Your task to perform on an android device: open wifi settings Image 0: 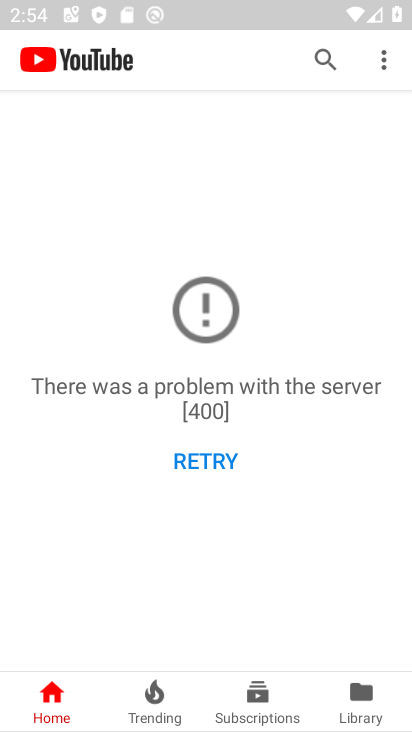
Step 0: press home button
Your task to perform on an android device: open wifi settings Image 1: 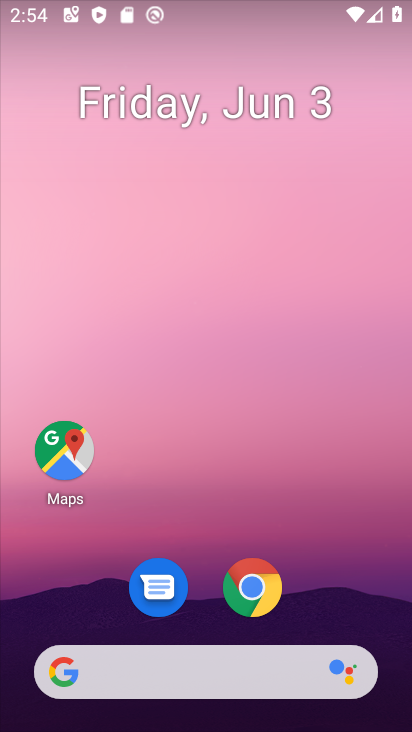
Step 1: drag from (228, 730) to (189, 73)
Your task to perform on an android device: open wifi settings Image 2: 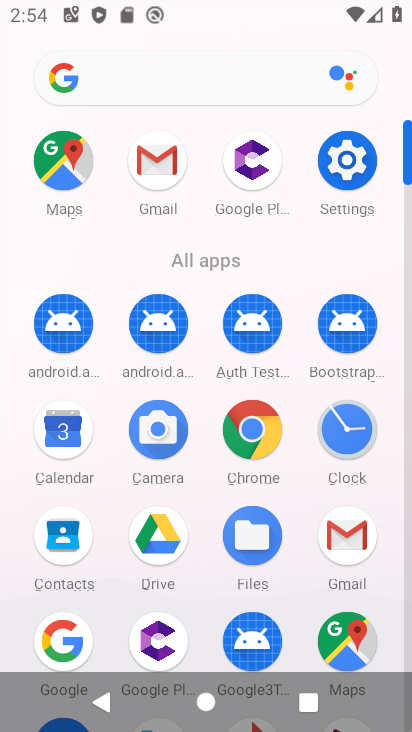
Step 2: click (341, 163)
Your task to perform on an android device: open wifi settings Image 3: 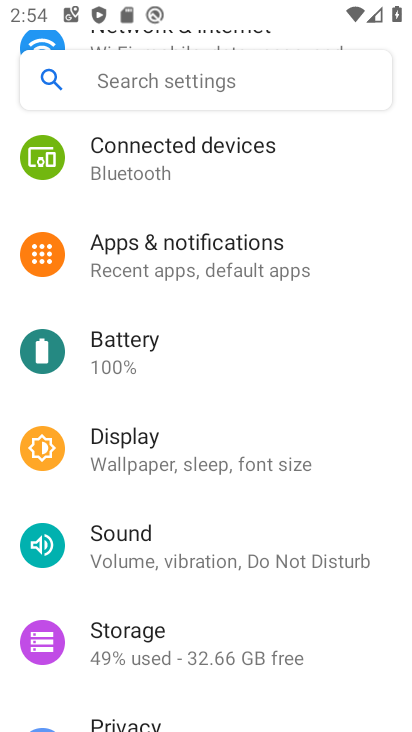
Step 3: drag from (215, 147) to (244, 412)
Your task to perform on an android device: open wifi settings Image 4: 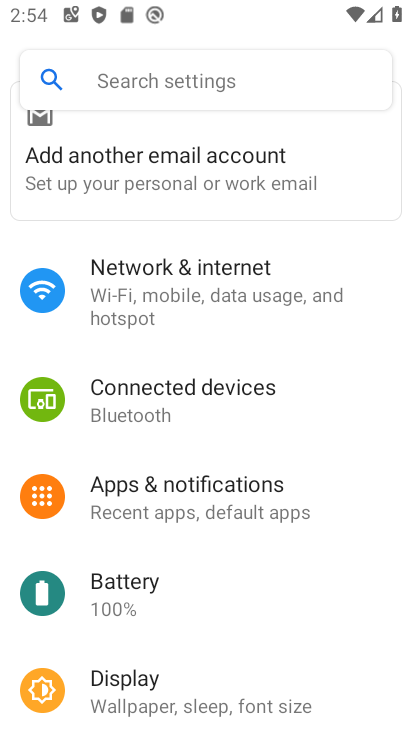
Step 4: click (188, 288)
Your task to perform on an android device: open wifi settings Image 5: 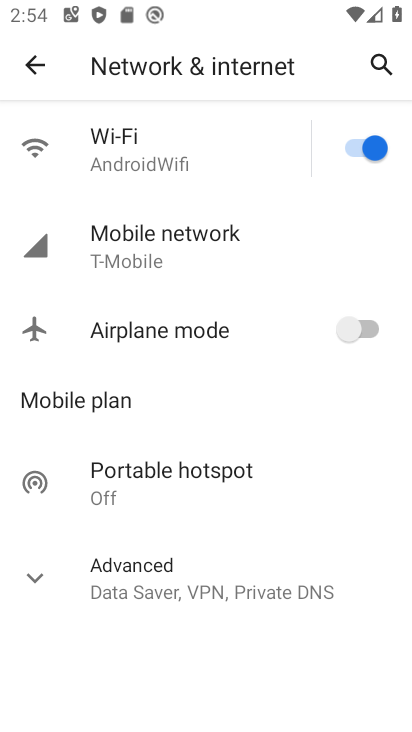
Step 5: click (125, 159)
Your task to perform on an android device: open wifi settings Image 6: 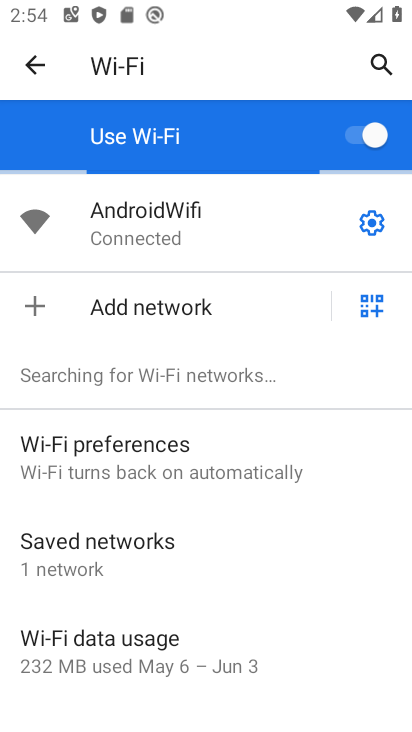
Step 6: task complete